Your task to perform on an android device: uninstall "Flipkart Online Shopping App" Image 0: 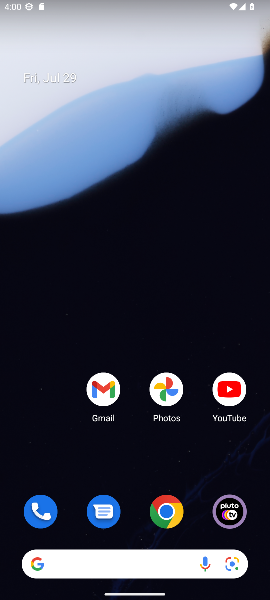
Step 0: drag from (123, 554) to (130, 171)
Your task to perform on an android device: uninstall "Flipkart Online Shopping App" Image 1: 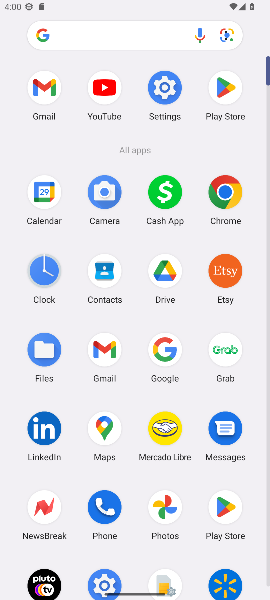
Step 1: click (221, 512)
Your task to perform on an android device: uninstall "Flipkart Online Shopping App" Image 2: 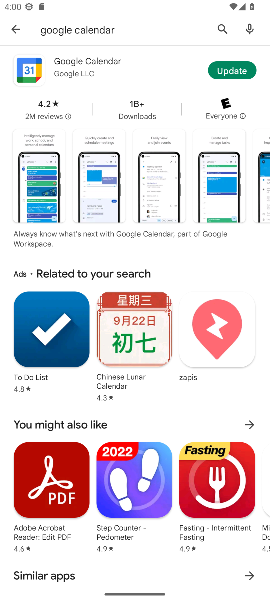
Step 2: click (19, 26)
Your task to perform on an android device: uninstall "Flipkart Online Shopping App" Image 3: 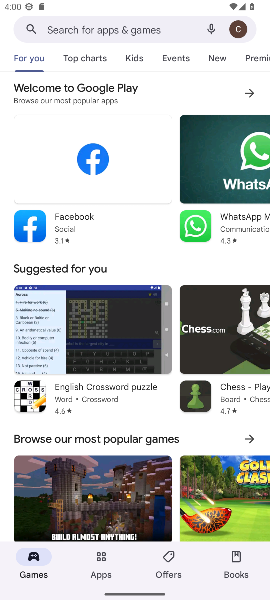
Step 3: click (71, 31)
Your task to perform on an android device: uninstall "Flipkart Online Shopping App" Image 4: 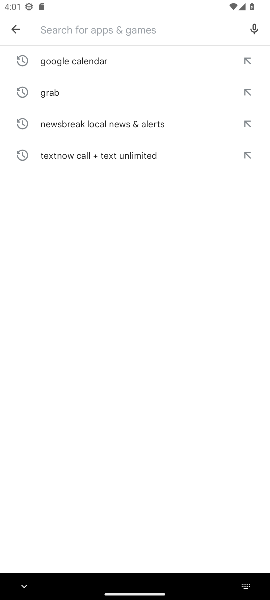
Step 4: type "Flipkart Online Shopping App""
Your task to perform on an android device: uninstall "Flipkart Online Shopping App" Image 5: 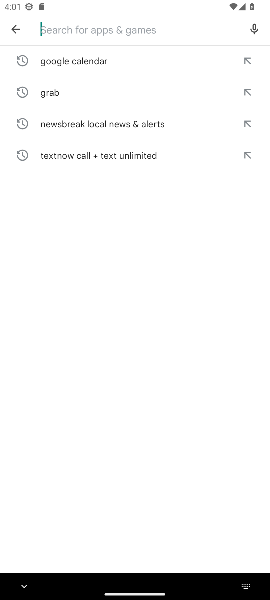
Step 5: type "Flipkart Online Shopping App"
Your task to perform on an android device: uninstall "Flipkart Online Shopping App" Image 6: 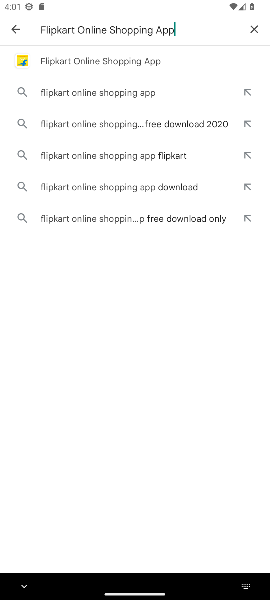
Step 6: click (130, 62)
Your task to perform on an android device: uninstall "Flipkart Online Shopping App" Image 7: 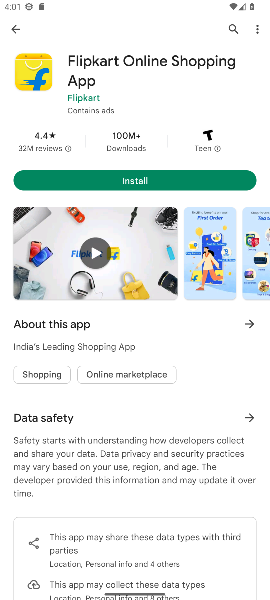
Step 7: task complete